Your task to perform on an android device: Open the calendar app, open the side menu, and click the "Day" option Image 0: 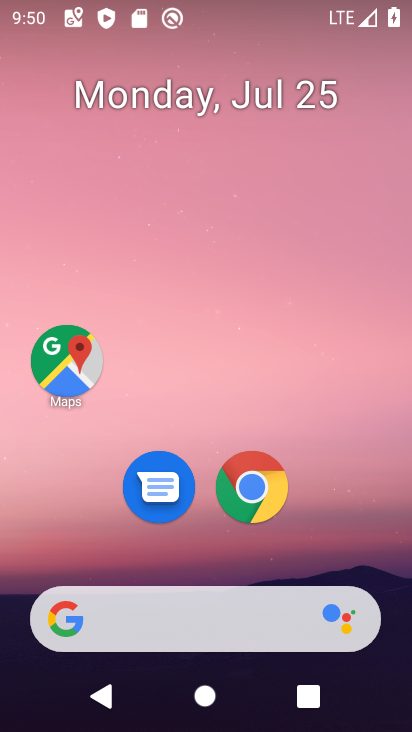
Step 0: drag from (70, 555) to (153, 50)
Your task to perform on an android device: Open the calendar app, open the side menu, and click the "Day" option Image 1: 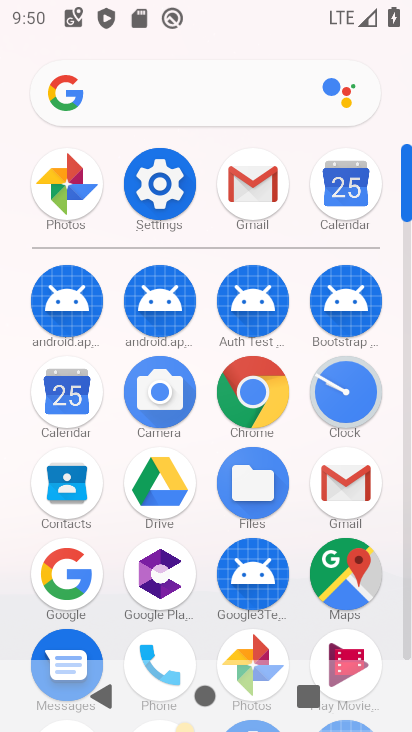
Step 1: click (79, 396)
Your task to perform on an android device: Open the calendar app, open the side menu, and click the "Day" option Image 2: 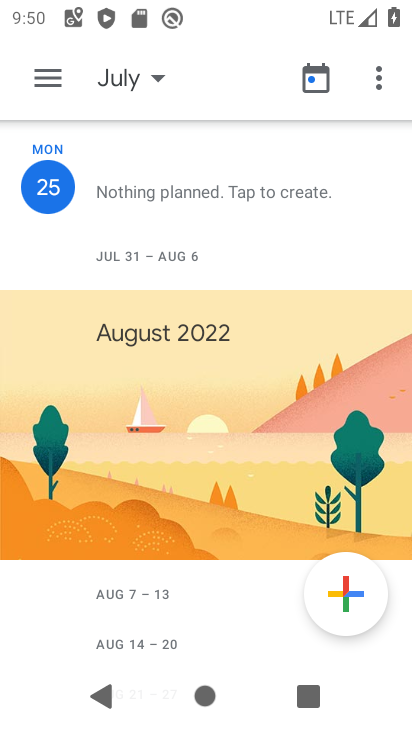
Step 2: click (61, 83)
Your task to perform on an android device: Open the calendar app, open the side menu, and click the "Day" option Image 3: 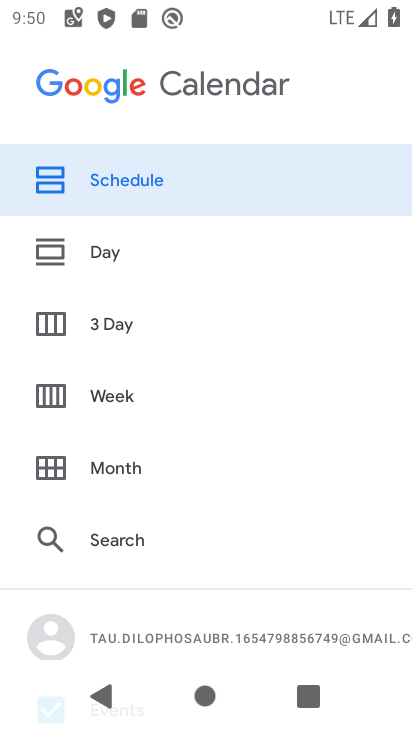
Step 3: click (105, 258)
Your task to perform on an android device: Open the calendar app, open the side menu, and click the "Day" option Image 4: 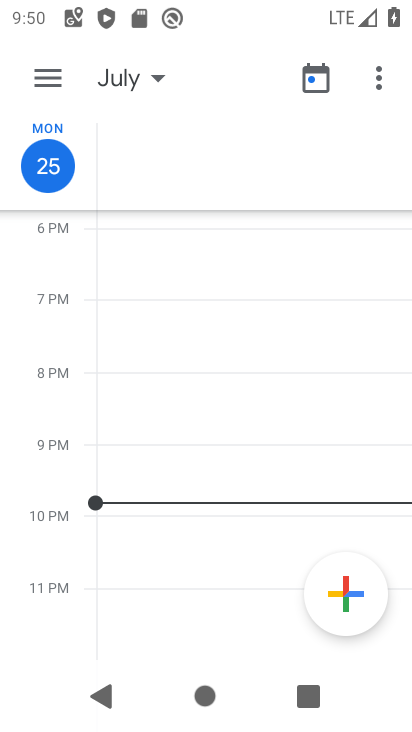
Step 4: click (50, 68)
Your task to perform on an android device: Open the calendar app, open the side menu, and click the "Day" option Image 5: 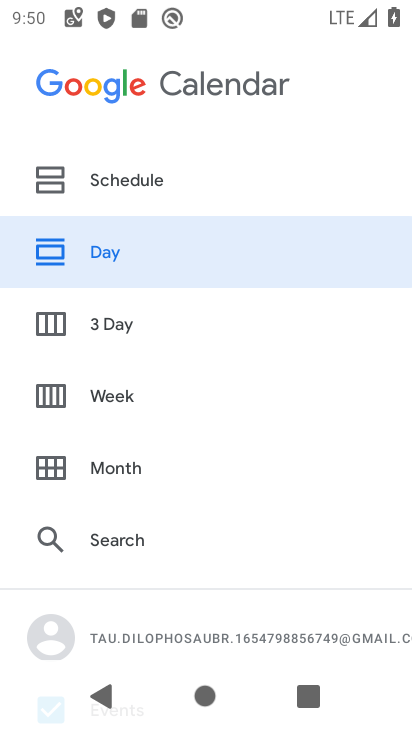
Step 5: click (115, 257)
Your task to perform on an android device: Open the calendar app, open the side menu, and click the "Day" option Image 6: 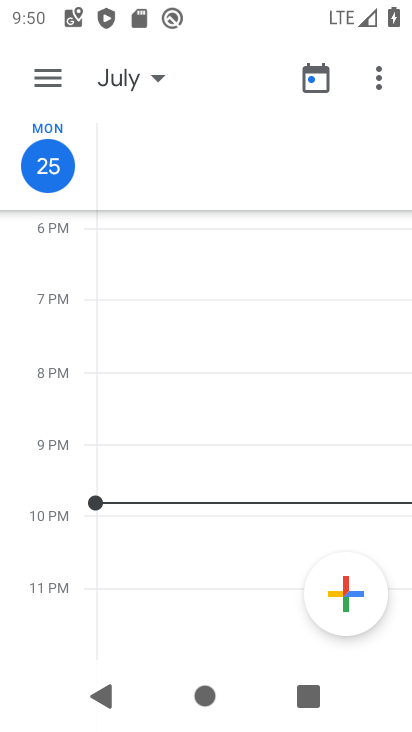
Step 6: task complete